Your task to perform on an android device: When is my next meeting? Image 0: 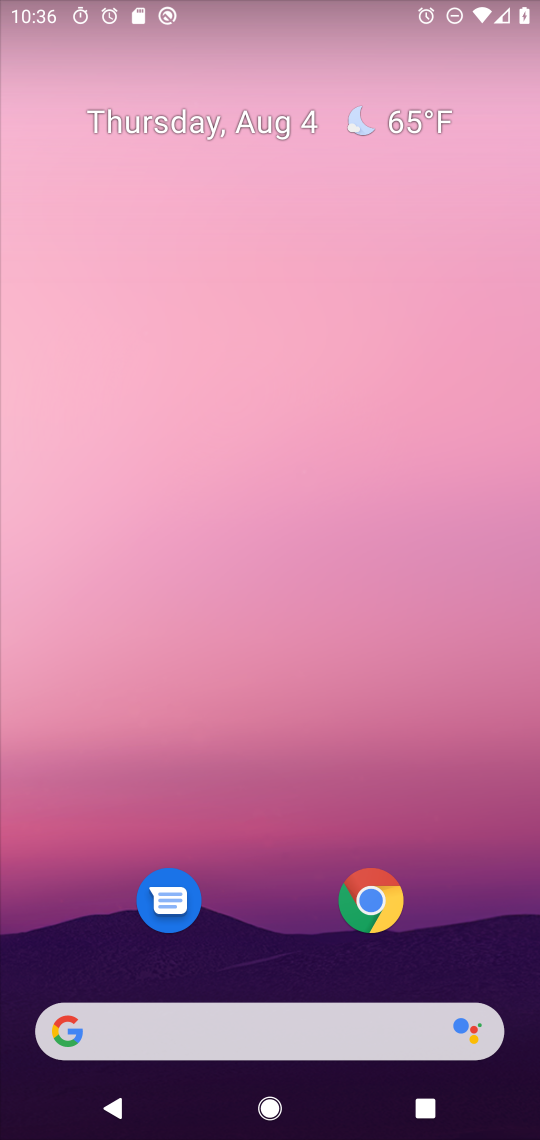
Step 0: drag from (260, 1032) to (307, 239)
Your task to perform on an android device: When is my next meeting? Image 1: 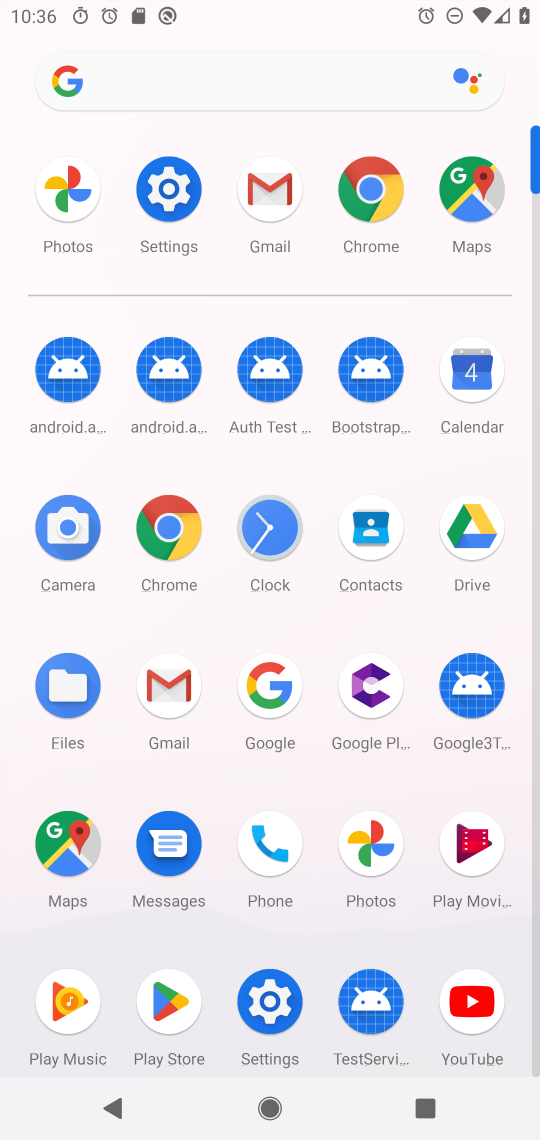
Step 1: click (473, 371)
Your task to perform on an android device: When is my next meeting? Image 2: 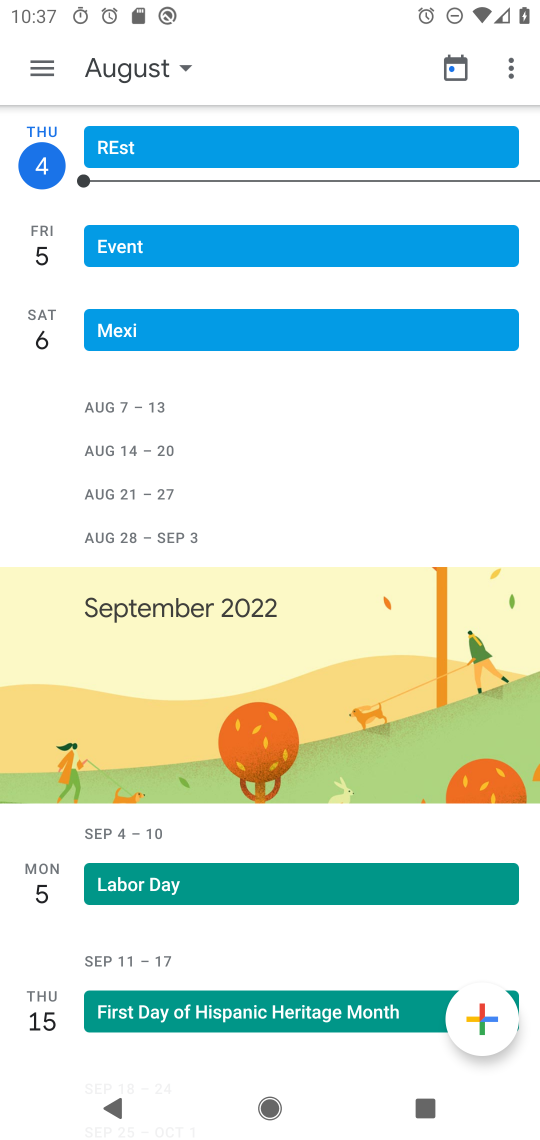
Step 2: click (453, 68)
Your task to perform on an android device: When is my next meeting? Image 3: 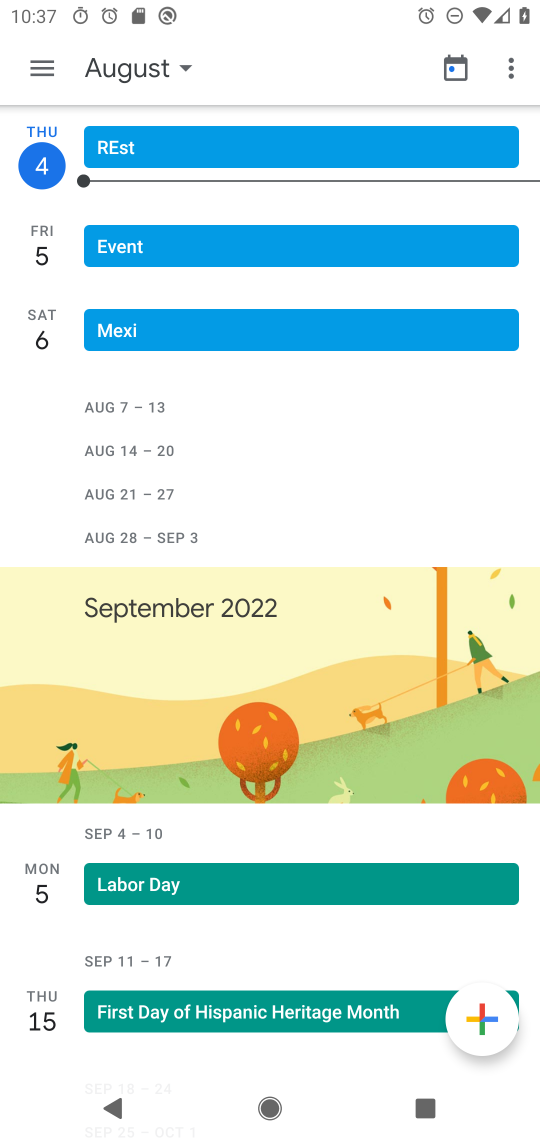
Step 3: click (177, 69)
Your task to perform on an android device: When is my next meeting? Image 4: 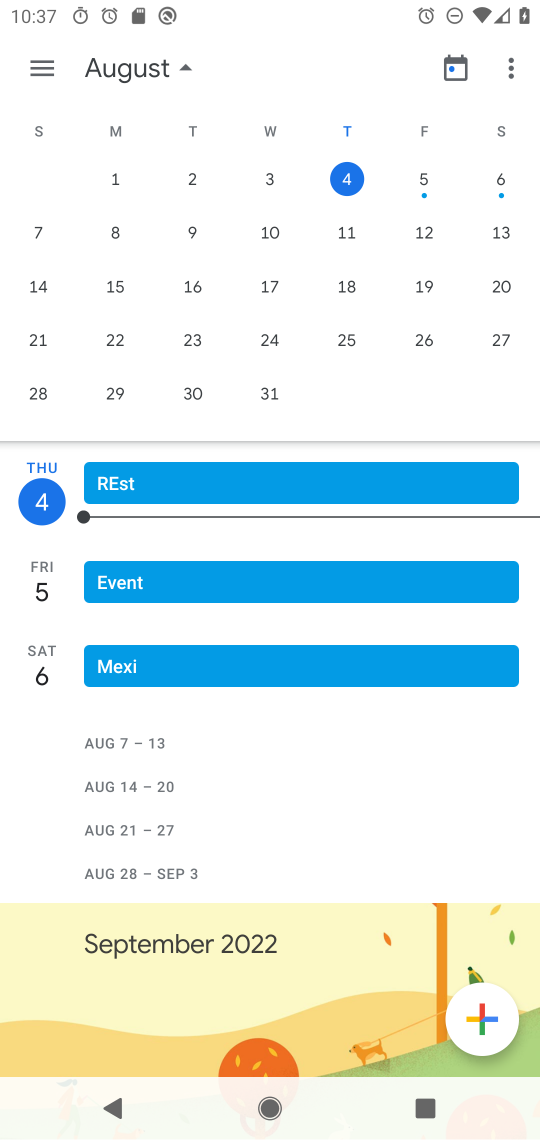
Step 4: click (423, 185)
Your task to perform on an android device: When is my next meeting? Image 5: 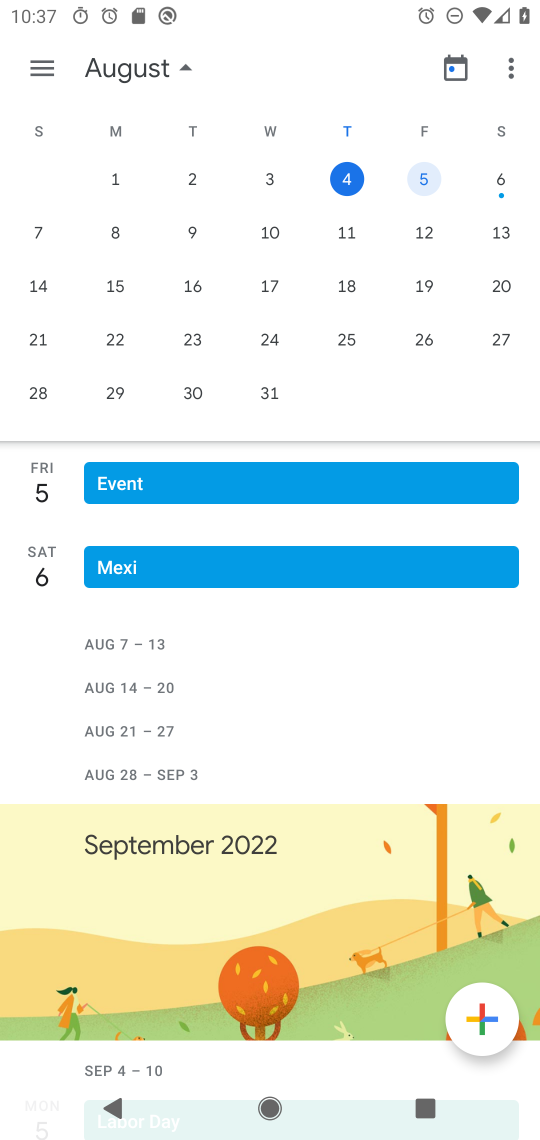
Step 5: click (33, 76)
Your task to perform on an android device: When is my next meeting? Image 6: 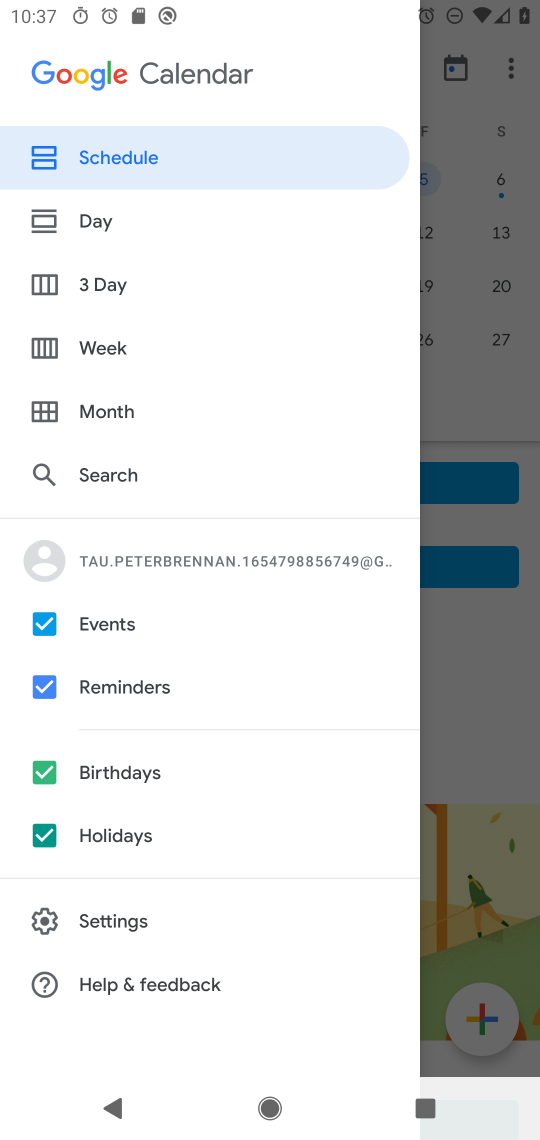
Step 6: click (64, 152)
Your task to perform on an android device: When is my next meeting? Image 7: 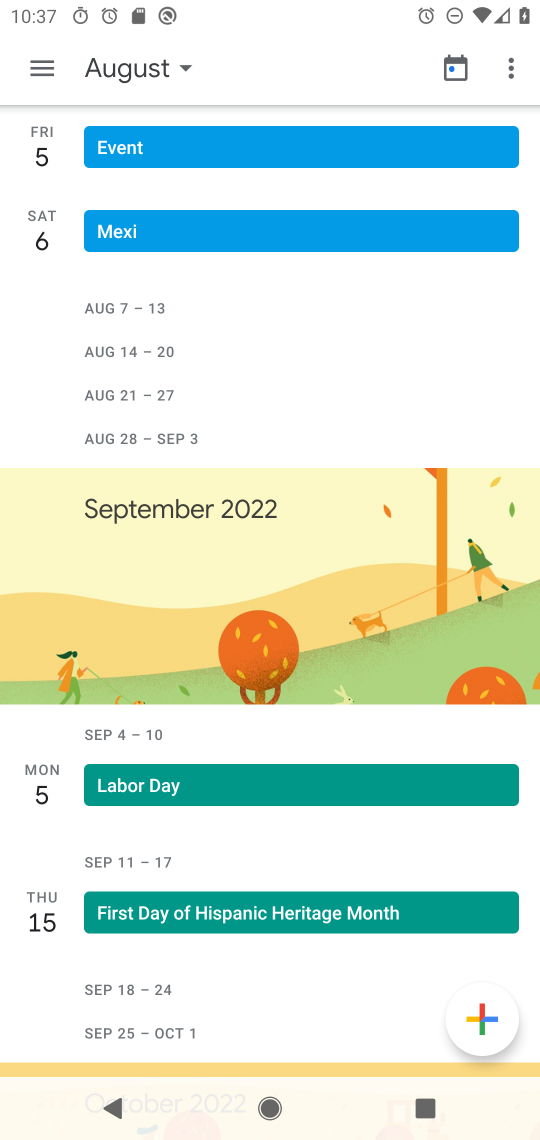
Step 7: task complete